Your task to perform on an android device: turn on javascript in the chrome app Image 0: 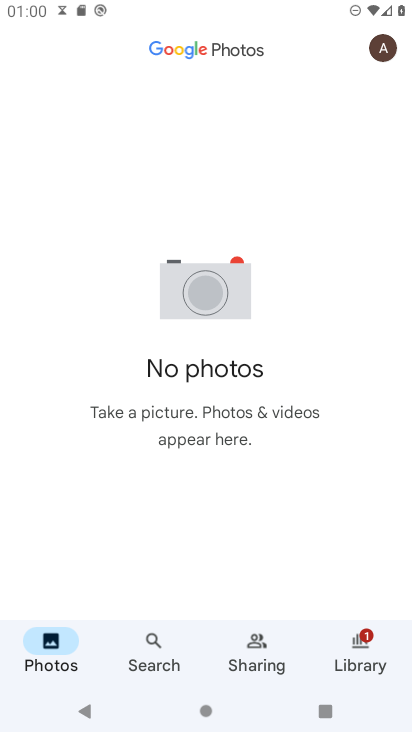
Step 0: press home button
Your task to perform on an android device: turn on javascript in the chrome app Image 1: 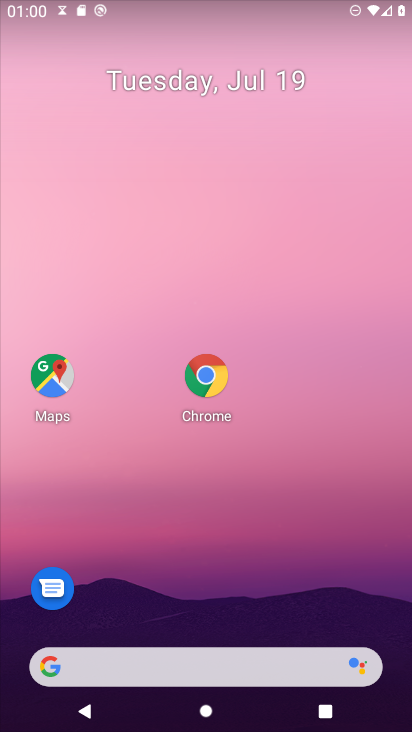
Step 1: click (202, 373)
Your task to perform on an android device: turn on javascript in the chrome app Image 2: 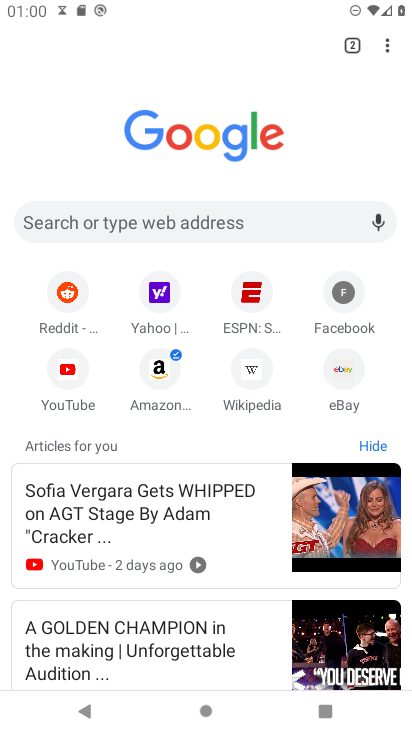
Step 2: drag from (384, 41) to (198, 382)
Your task to perform on an android device: turn on javascript in the chrome app Image 3: 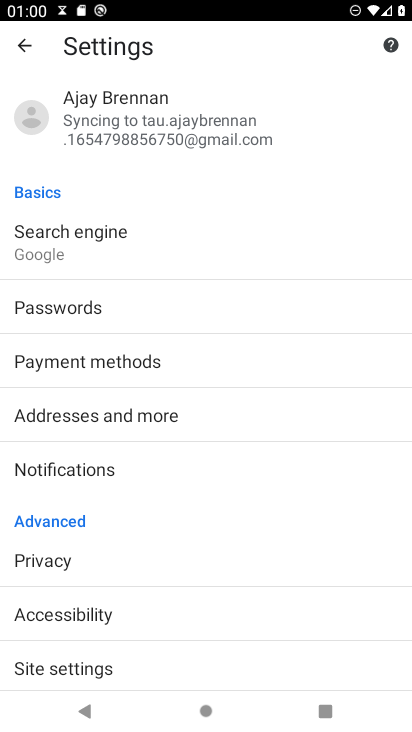
Step 3: click (118, 667)
Your task to perform on an android device: turn on javascript in the chrome app Image 4: 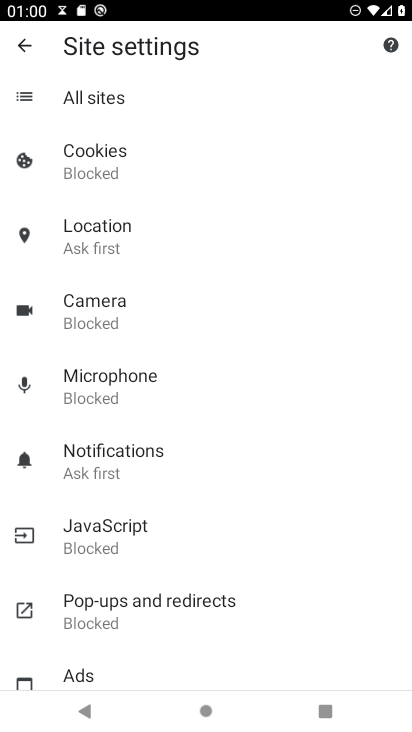
Step 4: click (126, 532)
Your task to perform on an android device: turn on javascript in the chrome app Image 5: 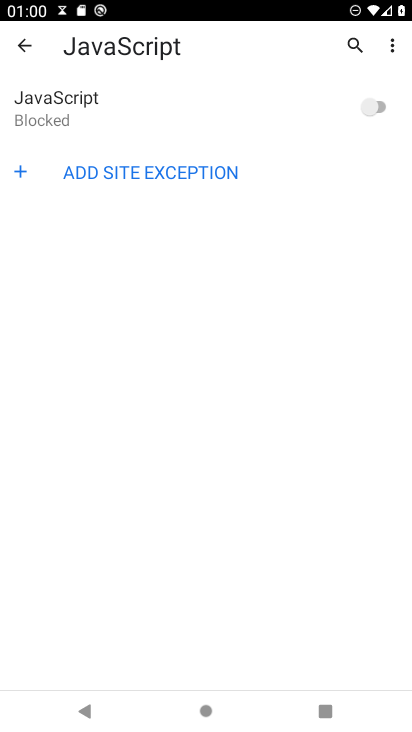
Step 5: click (362, 100)
Your task to perform on an android device: turn on javascript in the chrome app Image 6: 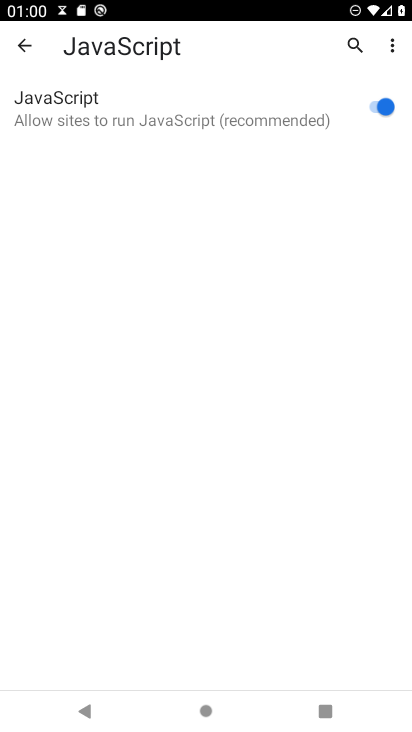
Step 6: task complete